Your task to perform on an android device: turn off javascript in the chrome app Image 0: 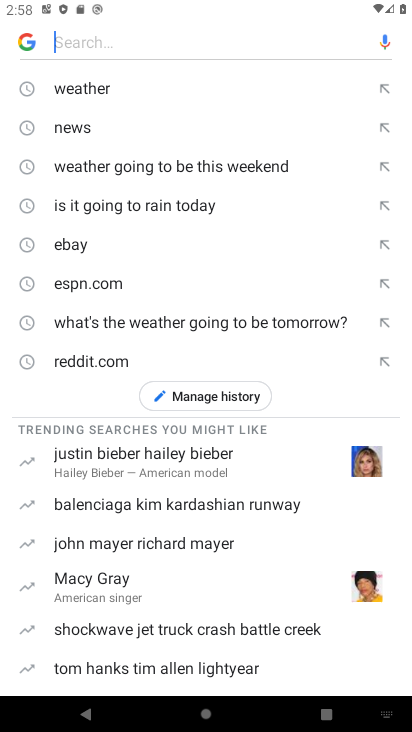
Step 0: press home button
Your task to perform on an android device: turn off javascript in the chrome app Image 1: 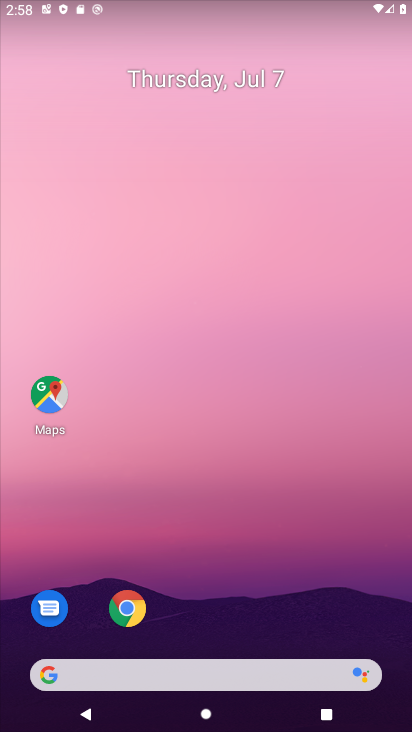
Step 1: click (128, 609)
Your task to perform on an android device: turn off javascript in the chrome app Image 2: 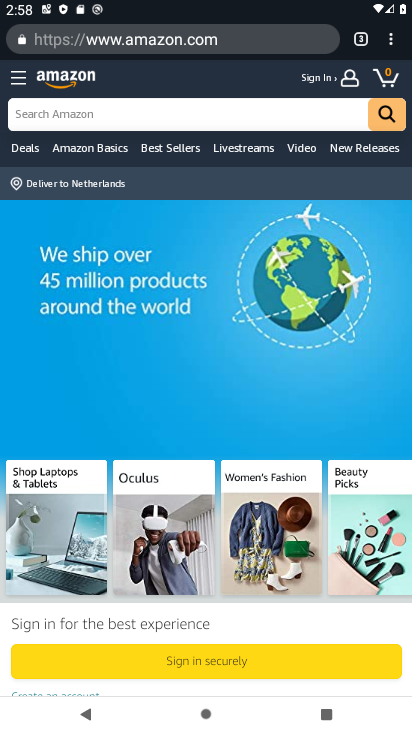
Step 2: click (387, 45)
Your task to perform on an android device: turn off javascript in the chrome app Image 3: 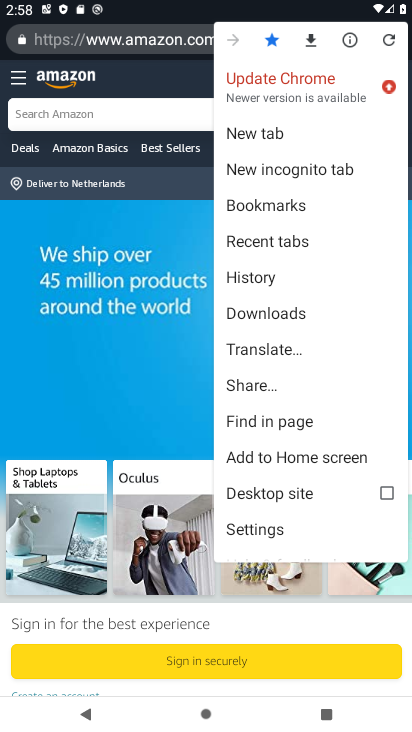
Step 3: click (260, 526)
Your task to perform on an android device: turn off javascript in the chrome app Image 4: 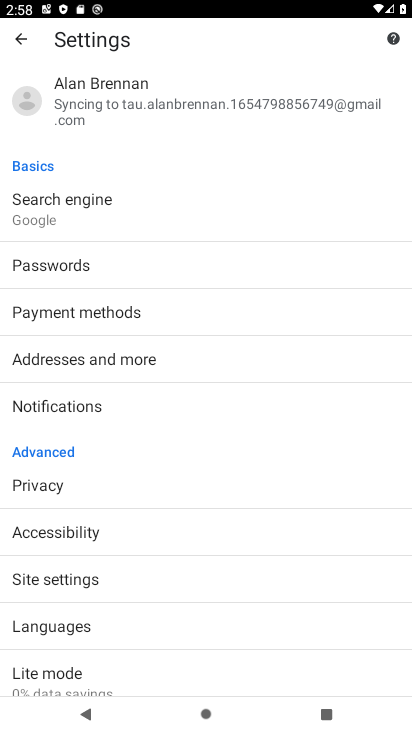
Step 4: click (81, 580)
Your task to perform on an android device: turn off javascript in the chrome app Image 5: 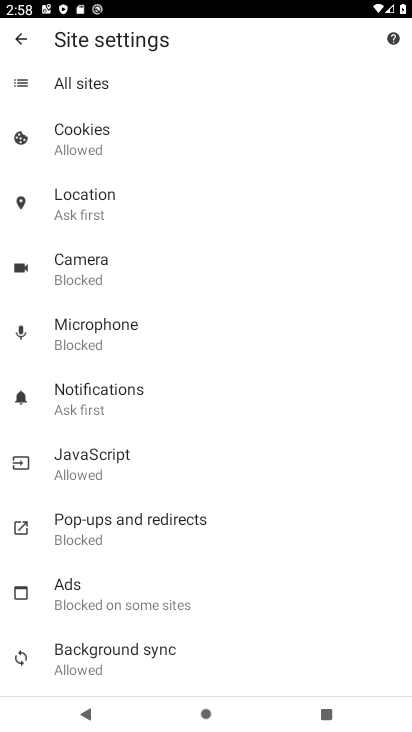
Step 5: click (96, 462)
Your task to perform on an android device: turn off javascript in the chrome app Image 6: 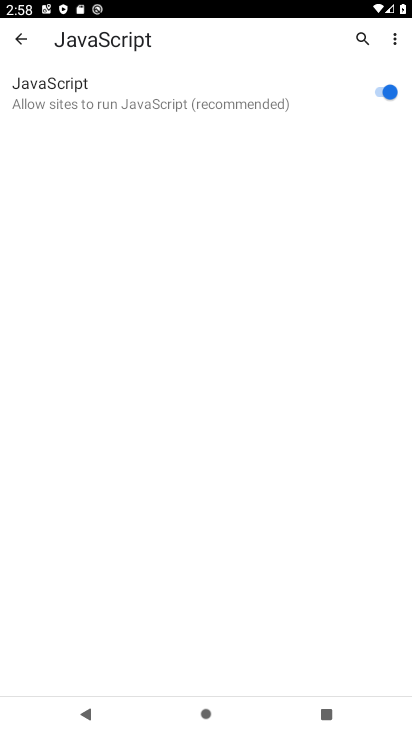
Step 6: click (377, 92)
Your task to perform on an android device: turn off javascript in the chrome app Image 7: 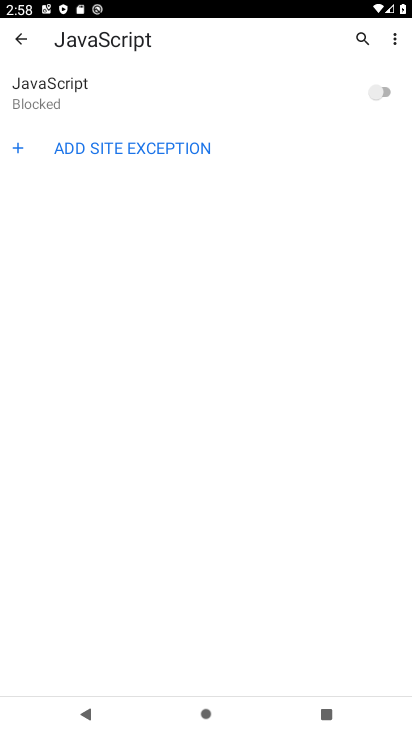
Step 7: task complete